Your task to perform on an android device: Open Google Chrome Image 0: 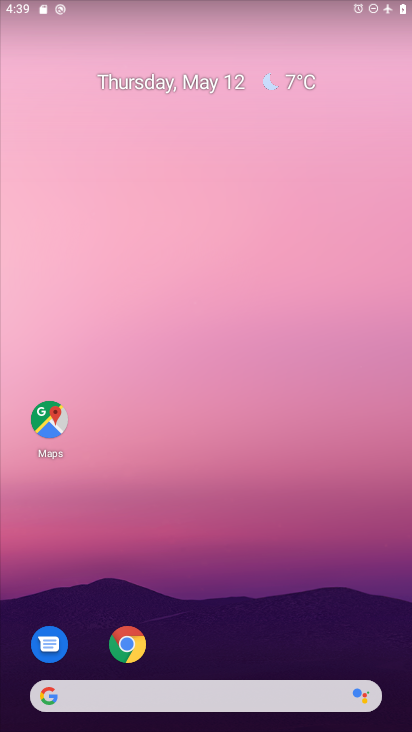
Step 0: click (135, 640)
Your task to perform on an android device: Open Google Chrome Image 1: 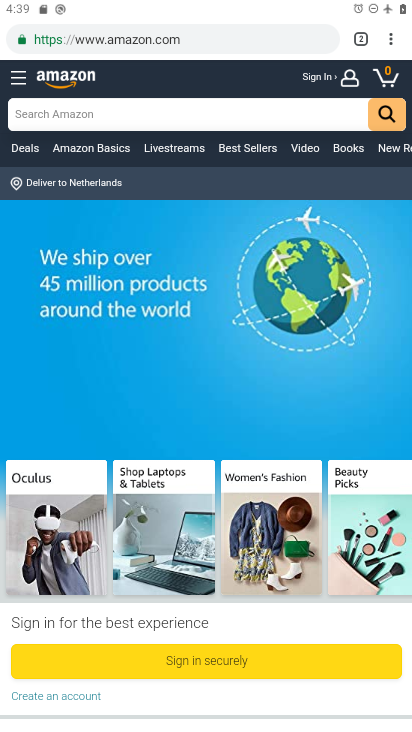
Step 1: task complete